Your task to perform on an android device: Open network settings Image 0: 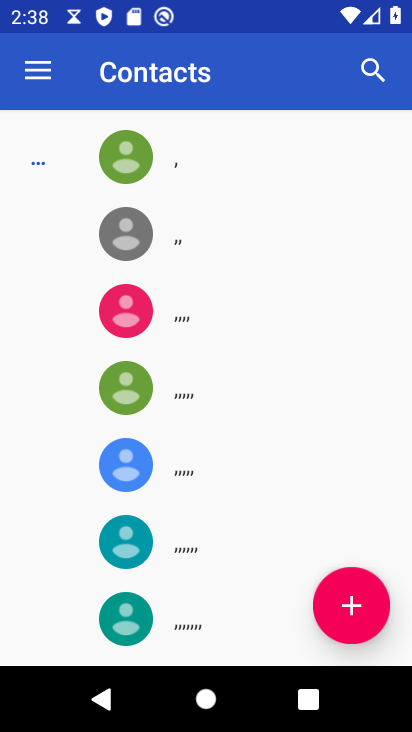
Step 0: press home button
Your task to perform on an android device: Open network settings Image 1: 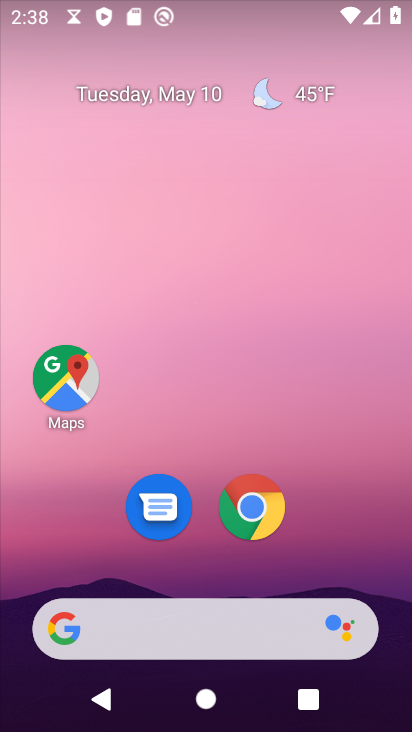
Step 1: drag from (333, 546) to (104, 138)
Your task to perform on an android device: Open network settings Image 2: 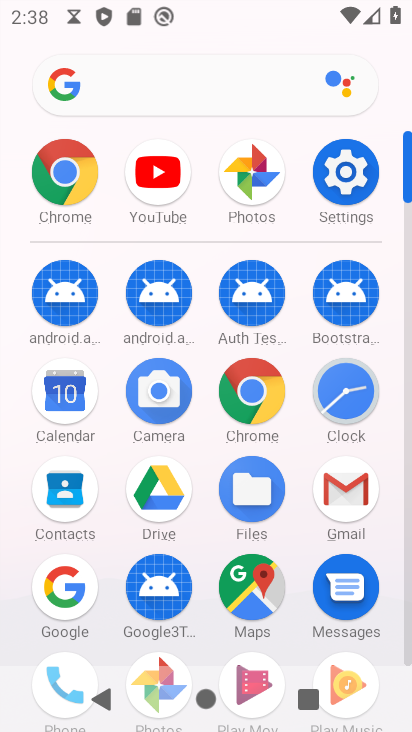
Step 2: click (338, 172)
Your task to perform on an android device: Open network settings Image 3: 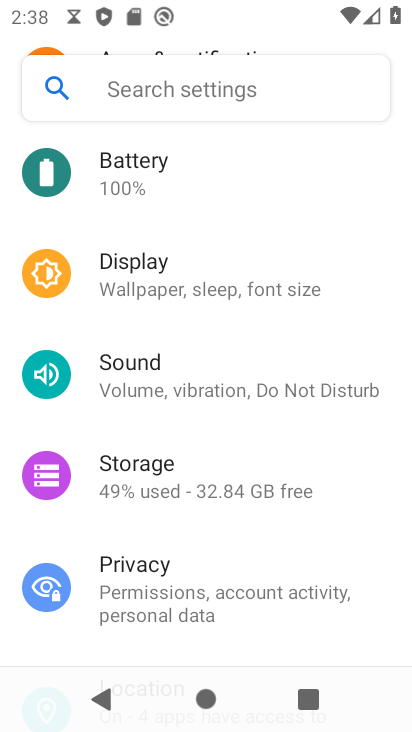
Step 3: drag from (190, 206) to (193, 533)
Your task to perform on an android device: Open network settings Image 4: 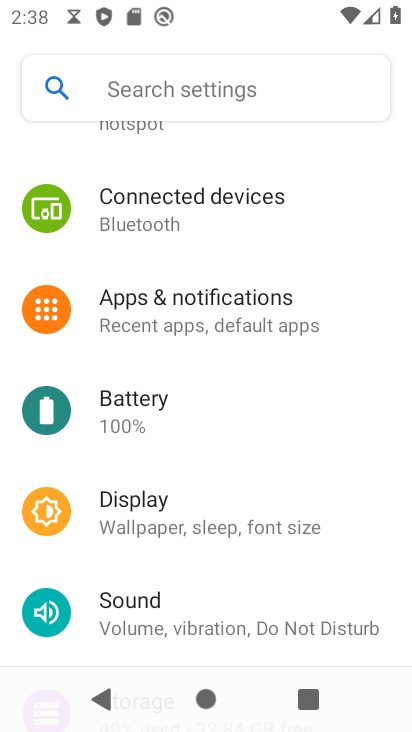
Step 4: drag from (195, 222) to (182, 457)
Your task to perform on an android device: Open network settings Image 5: 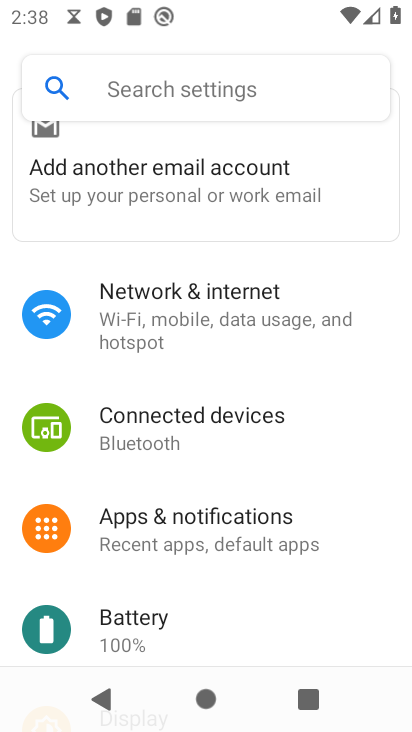
Step 5: click (178, 321)
Your task to perform on an android device: Open network settings Image 6: 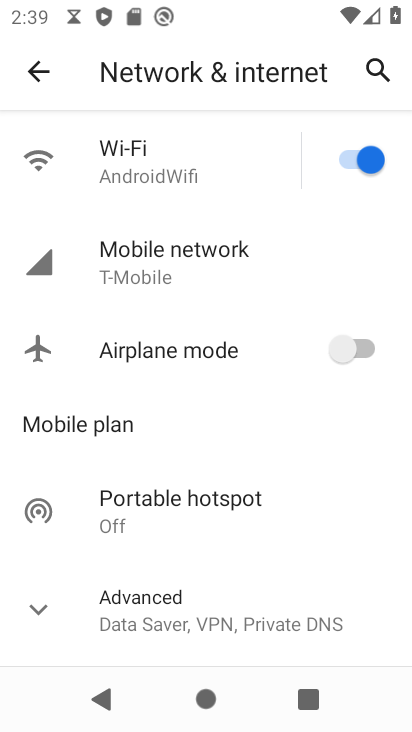
Step 6: click (178, 270)
Your task to perform on an android device: Open network settings Image 7: 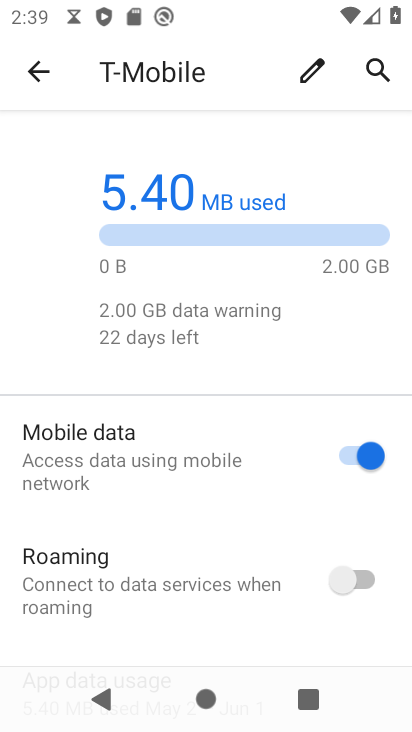
Step 7: click (146, 561)
Your task to perform on an android device: Open network settings Image 8: 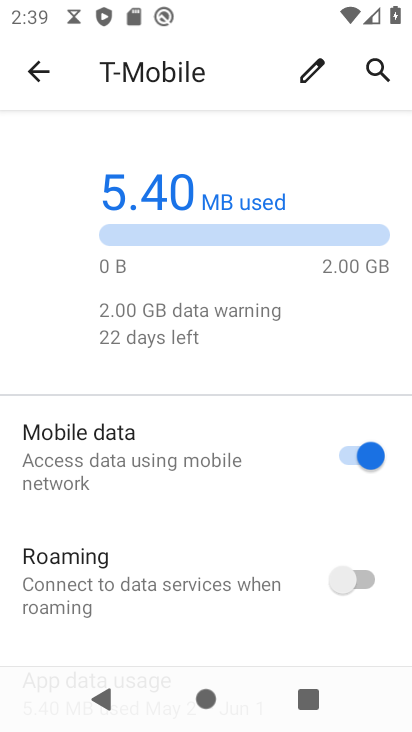
Step 8: task complete